Your task to perform on an android device: see creations saved in the google photos Image 0: 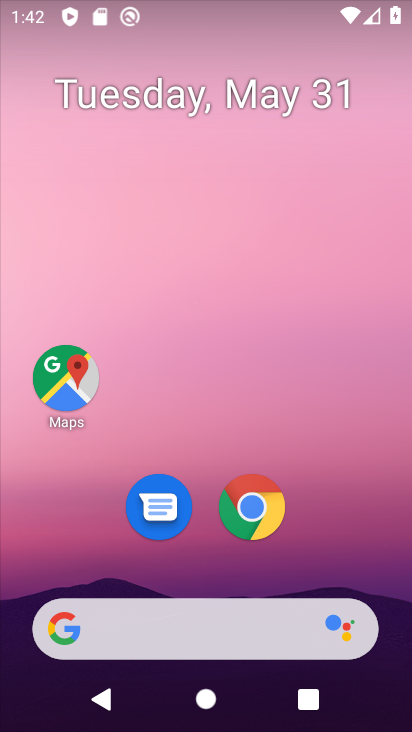
Step 0: drag from (253, 574) to (272, 8)
Your task to perform on an android device: see creations saved in the google photos Image 1: 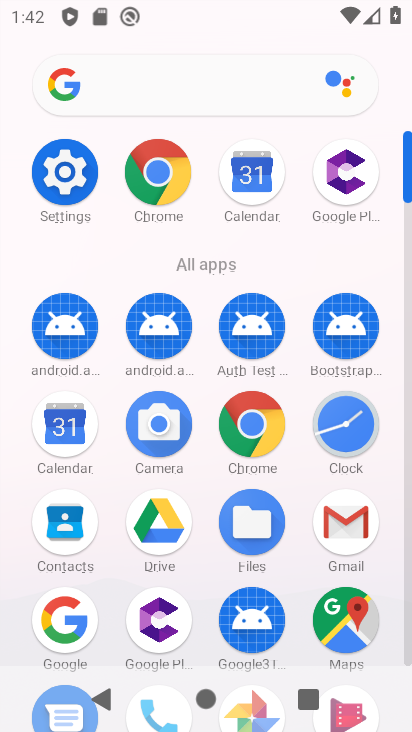
Step 1: drag from (210, 482) to (106, 0)
Your task to perform on an android device: see creations saved in the google photos Image 2: 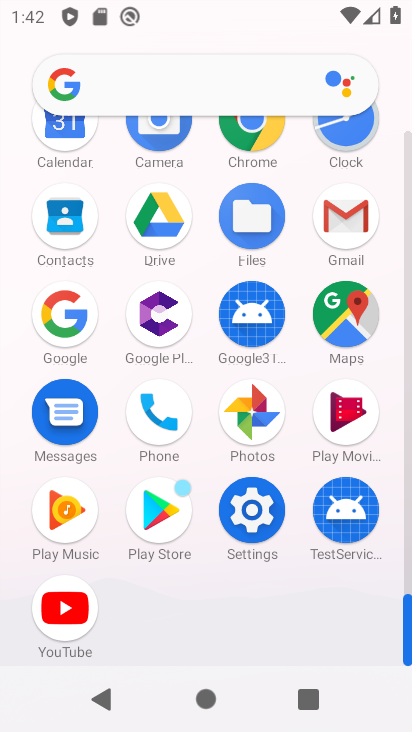
Step 2: click (248, 385)
Your task to perform on an android device: see creations saved in the google photos Image 3: 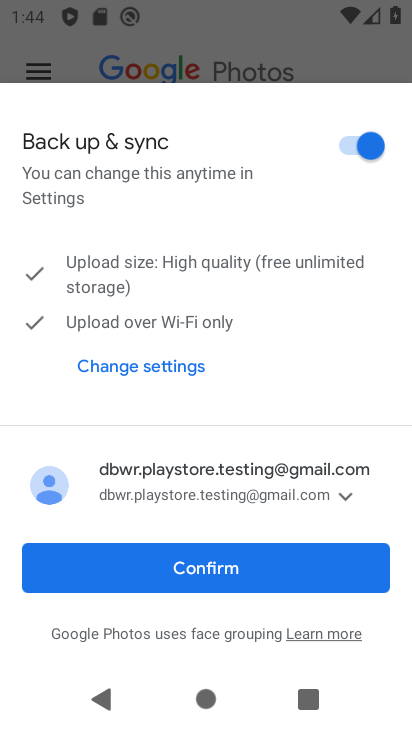
Step 3: task complete